Your task to perform on an android device: Go to accessibility settings Image 0: 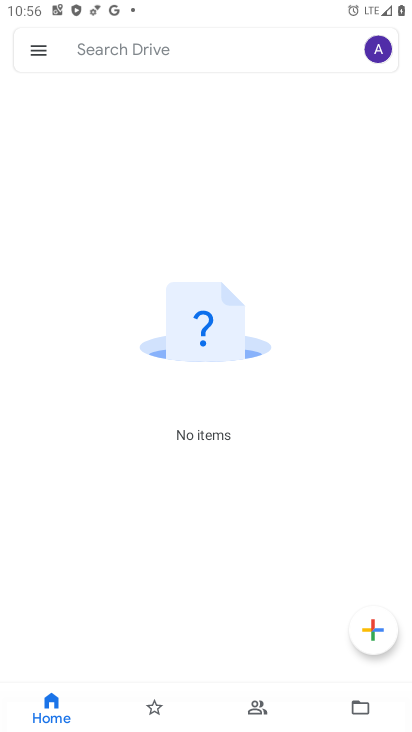
Step 0: press home button
Your task to perform on an android device: Go to accessibility settings Image 1: 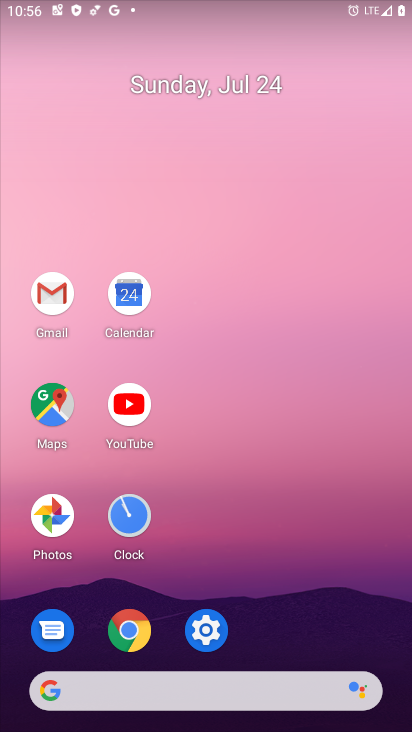
Step 1: click (202, 627)
Your task to perform on an android device: Go to accessibility settings Image 2: 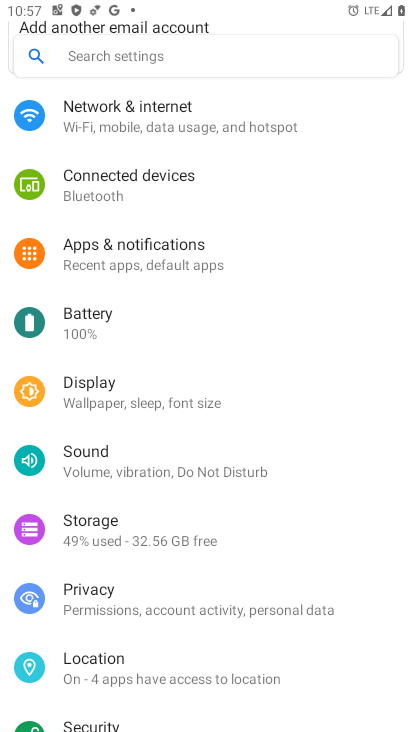
Step 2: drag from (266, 637) to (239, 85)
Your task to perform on an android device: Go to accessibility settings Image 3: 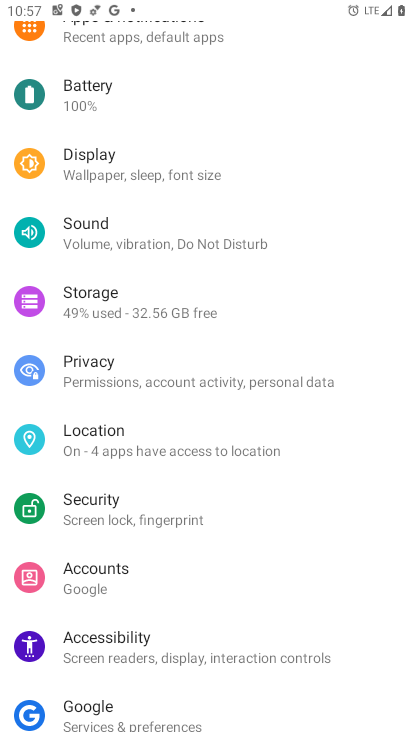
Step 3: click (107, 641)
Your task to perform on an android device: Go to accessibility settings Image 4: 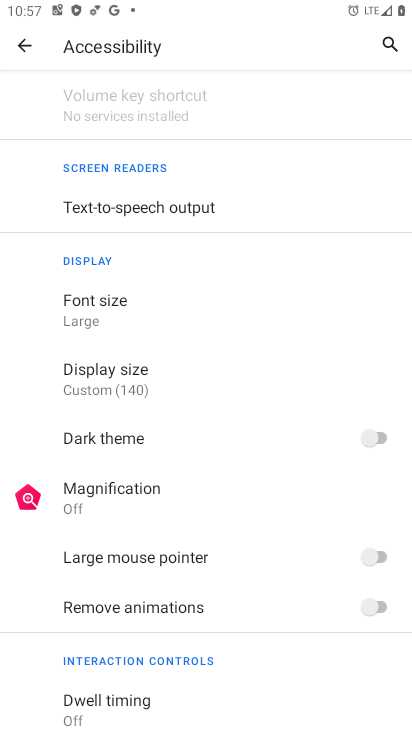
Step 4: task complete